Your task to perform on an android device: toggle data saver in the chrome app Image 0: 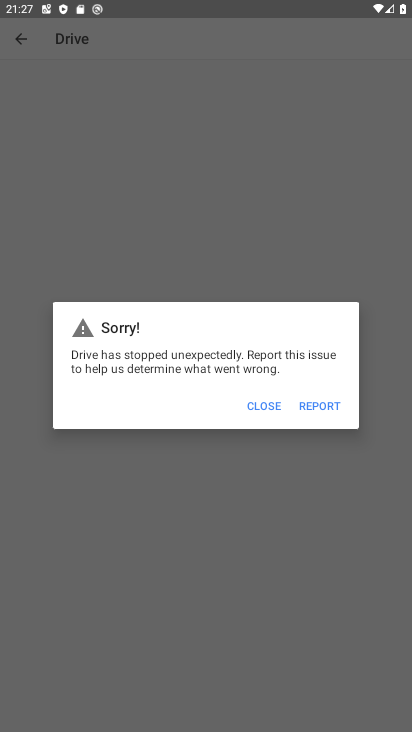
Step 0: press home button
Your task to perform on an android device: toggle data saver in the chrome app Image 1: 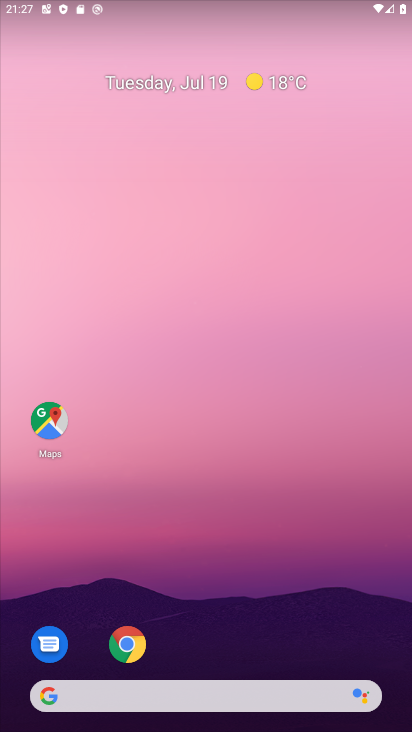
Step 1: drag from (213, 720) to (216, 207)
Your task to perform on an android device: toggle data saver in the chrome app Image 2: 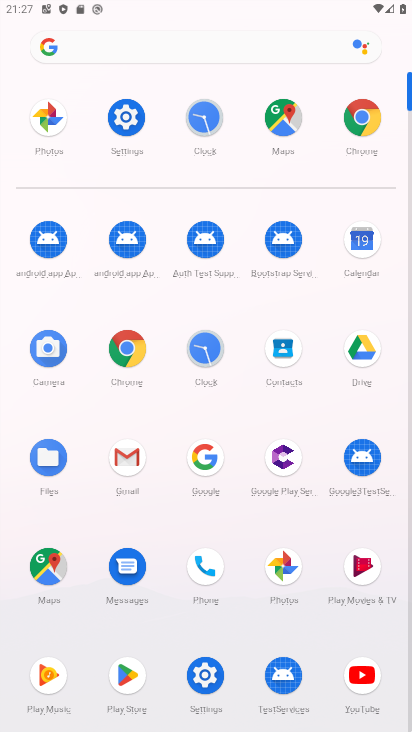
Step 2: click (126, 353)
Your task to perform on an android device: toggle data saver in the chrome app Image 3: 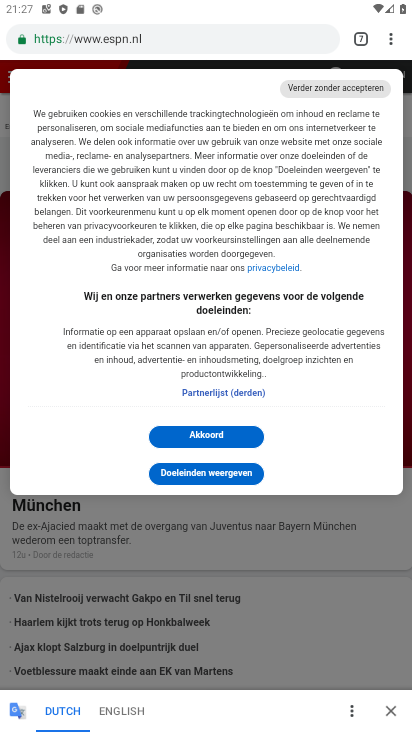
Step 3: click (391, 44)
Your task to perform on an android device: toggle data saver in the chrome app Image 4: 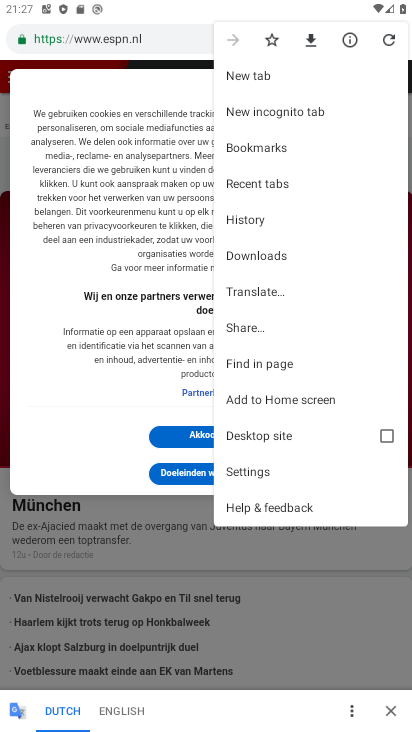
Step 4: click (252, 473)
Your task to perform on an android device: toggle data saver in the chrome app Image 5: 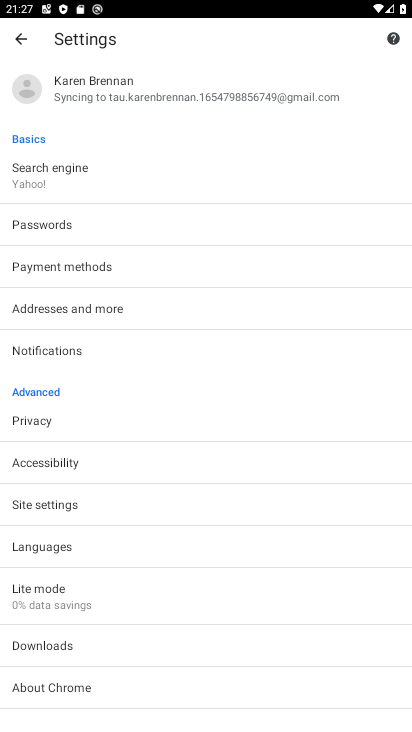
Step 5: click (52, 593)
Your task to perform on an android device: toggle data saver in the chrome app Image 6: 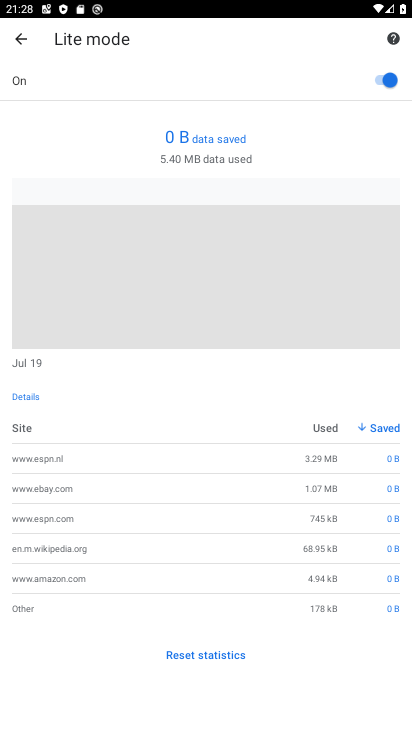
Step 6: click (377, 76)
Your task to perform on an android device: toggle data saver in the chrome app Image 7: 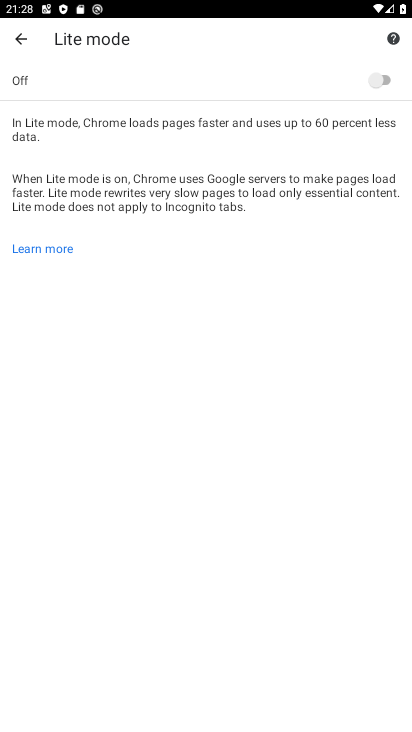
Step 7: task complete